Your task to perform on an android device: Go to Google maps Image 0: 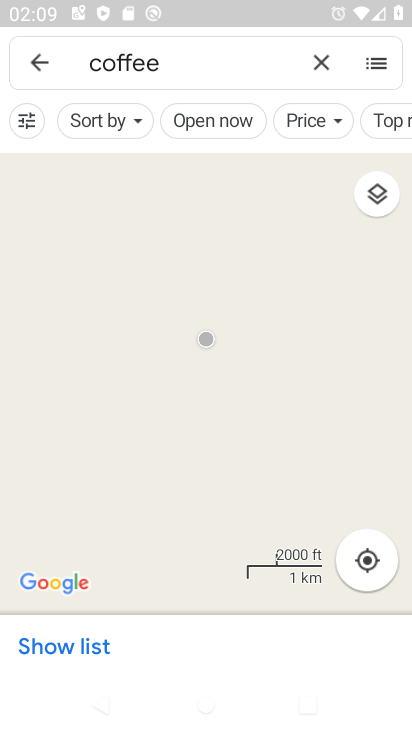
Step 0: press home button
Your task to perform on an android device: Go to Google maps Image 1: 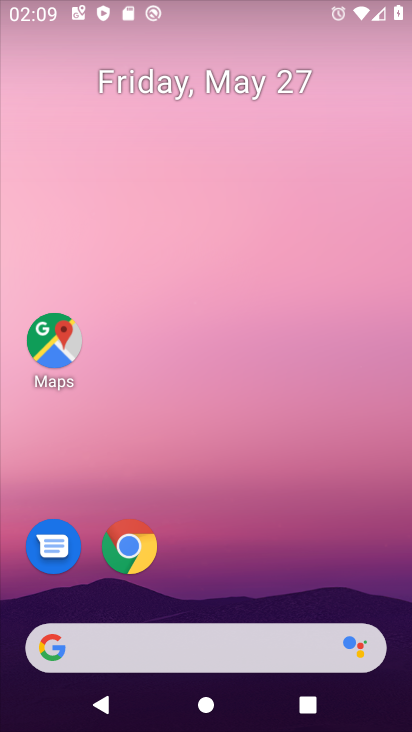
Step 1: drag from (255, 644) to (239, 145)
Your task to perform on an android device: Go to Google maps Image 2: 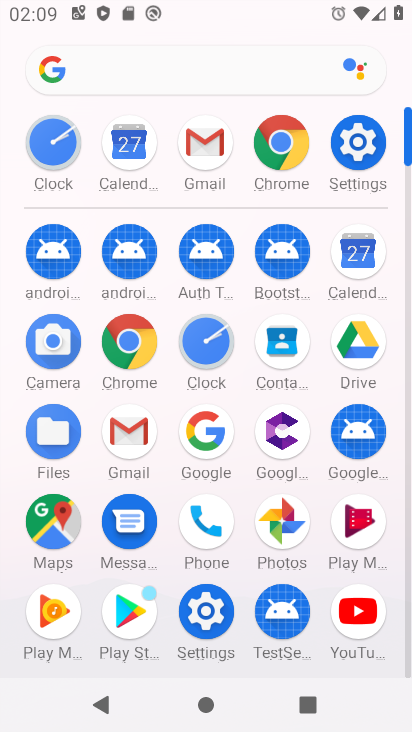
Step 2: click (55, 531)
Your task to perform on an android device: Go to Google maps Image 3: 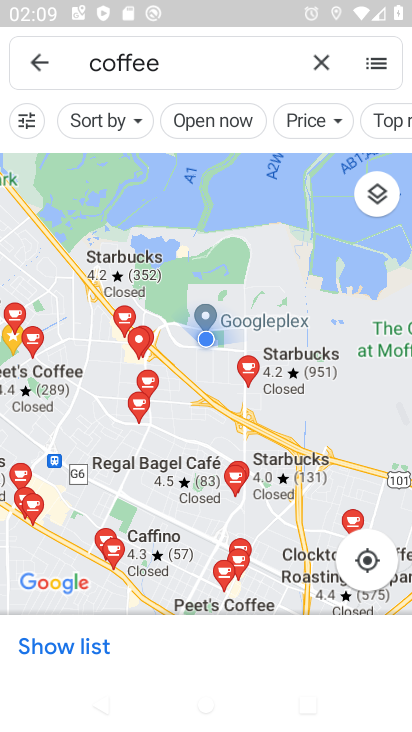
Step 3: click (40, 62)
Your task to perform on an android device: Go to Google maps Image 4: 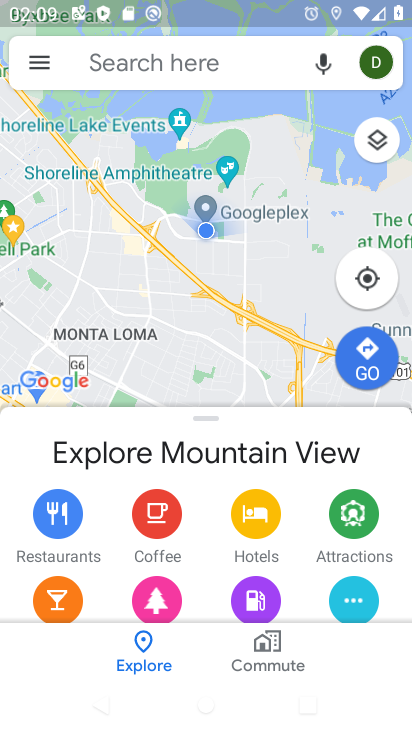
Step 4: click (374, 284)
Your task to perform on an android device: Go to Google maps Image 5: 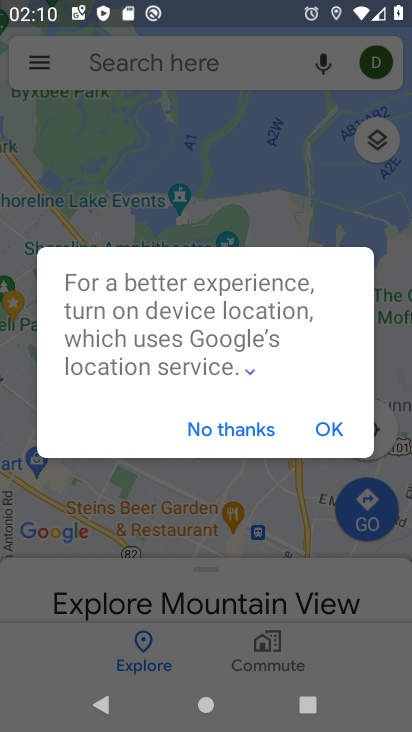
Step 5: click (319, 418)
Your task to perform on an android device: Go to Google maps Image 6: 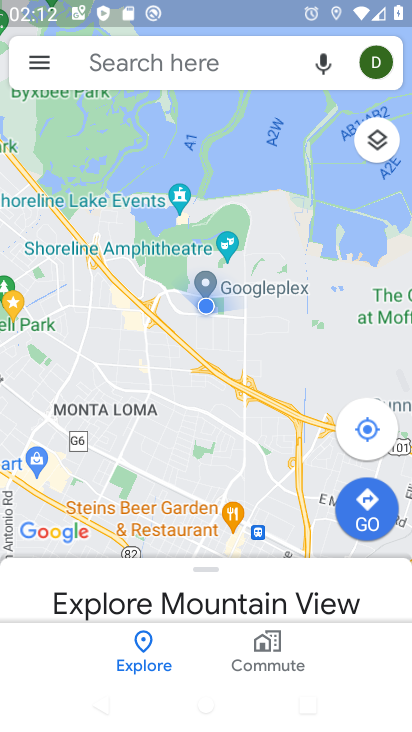
Step 6: task complete